Your task to perform on an android device: Do I have any events this weekend? Image 0: 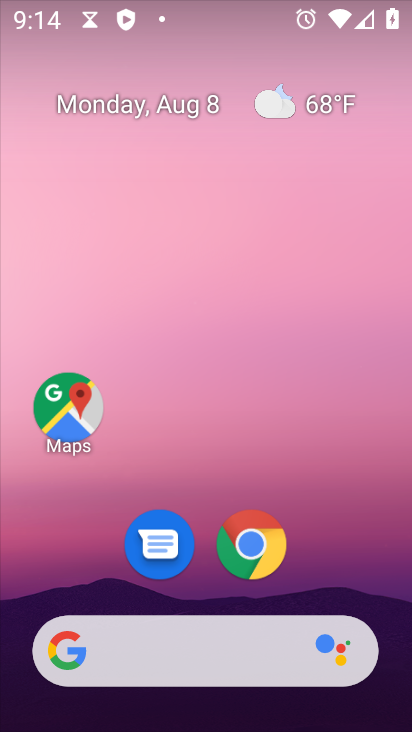
Step 0: press home button
Your task to perform on an android device: Do I have any events this weekend? Image 1: 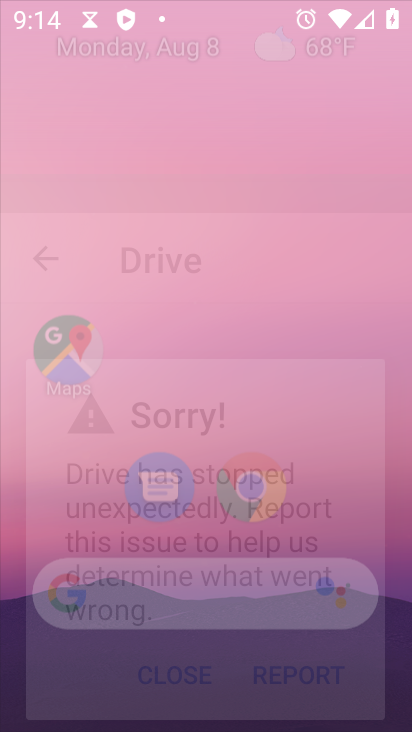
Step 1: drag from (208, 582) to (229, 172)
Your task to perform on an android device: Do I have any events this weekend? Image 2: 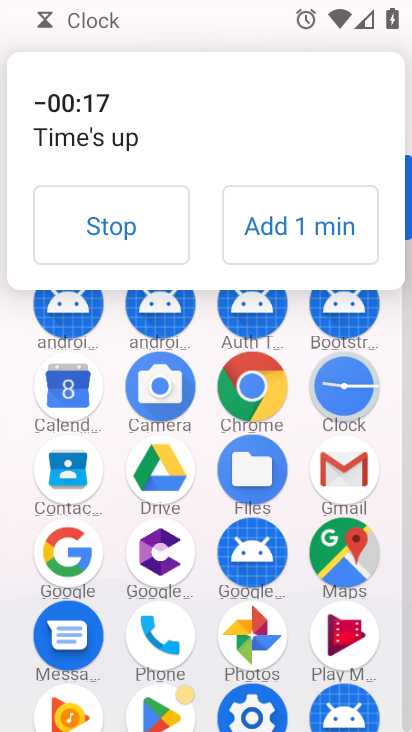
Step 2: click (117, 222)
Your task to perform on an android device: Do I have any events this weekend? Image 3: 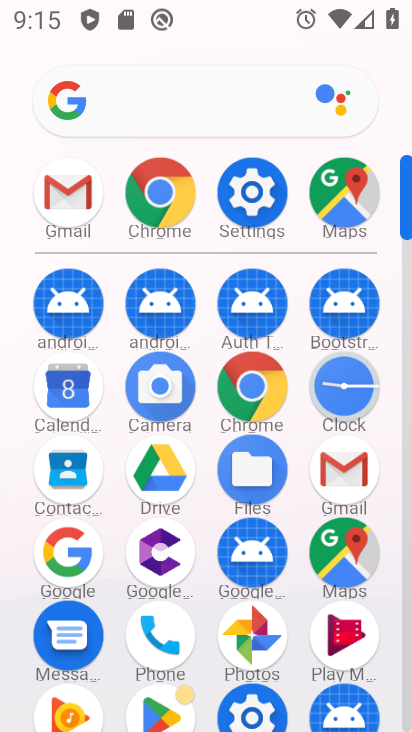
Step 3: click (67, 388)
Your task to perform on an android device: Do I have any events this weekend? Image 4: 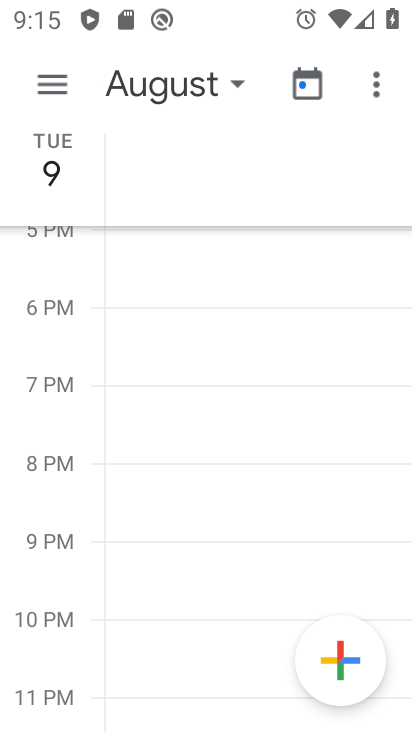
Step 4: click (52, 82)
Your task to perform on an android device: Do I have any events this weekend? Image 5: 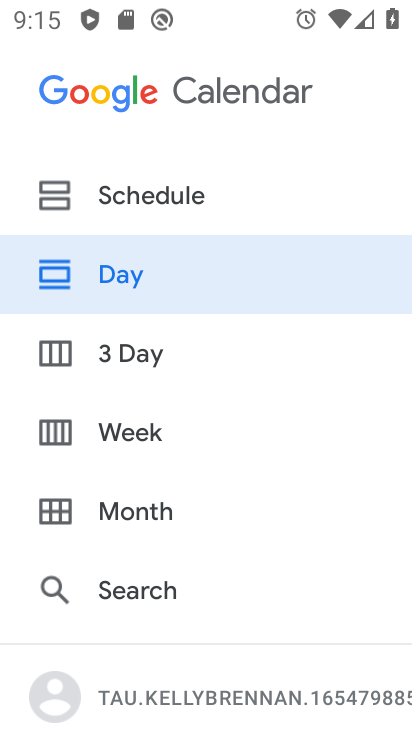
Step 5: click (84, 429)
Your task to perform on an android device: Do I have any events this weekend? Image 6: 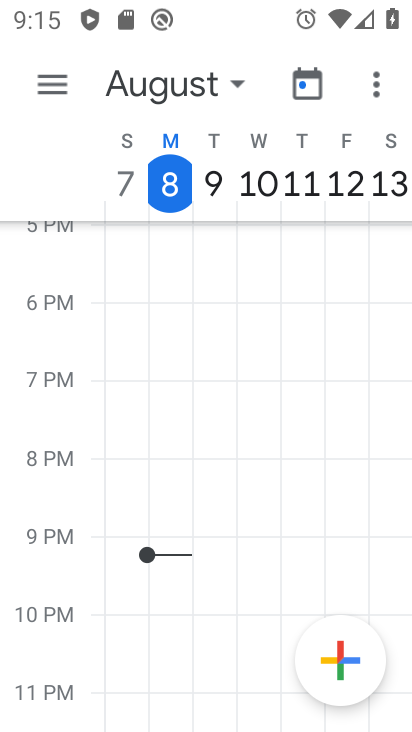
Step 6: click (170, 193)
Your task to perform on an android device: Do I have any events this weekend? Image 7: 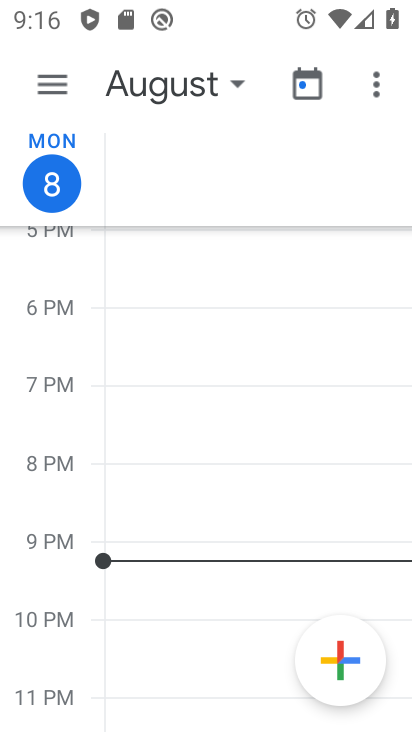
Step 7: click (80, 181)
Your task to perform on an android device: Do I have any events this weekend? Image 8: 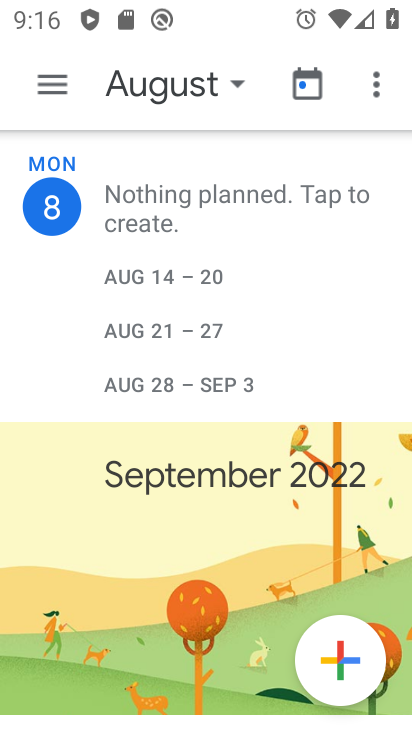
Step 8: task complete